Your task to perform on an android device: Go to Wikipedia Image 0: 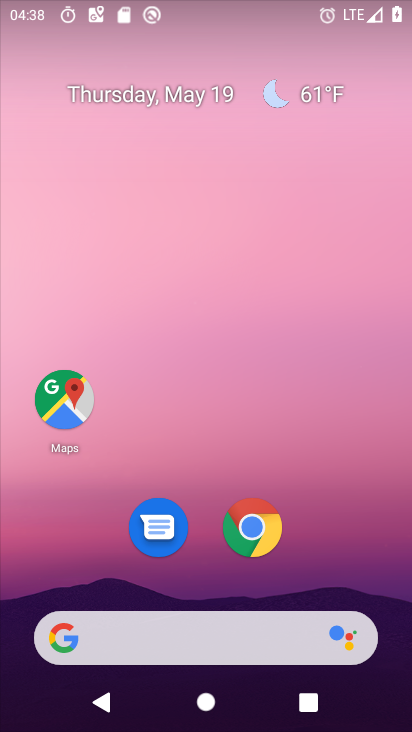
Step 0: click (251, 515)
Your task to perform on an android device: Go to Wikipedia Image 1: 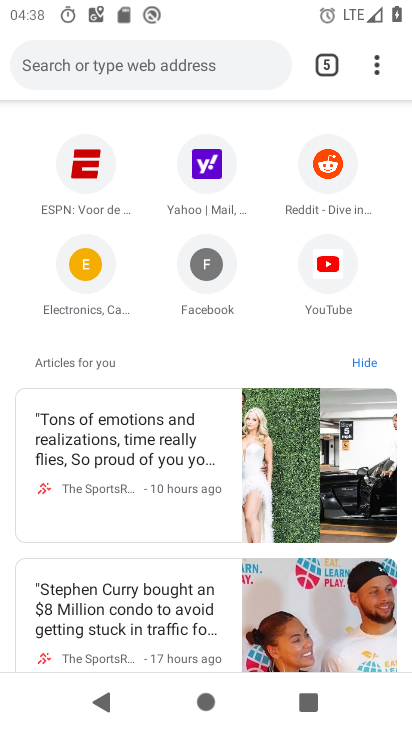
Step 1: click (109, 68)
Your task to perform on an android device: Go to Wikipedia Image 2: 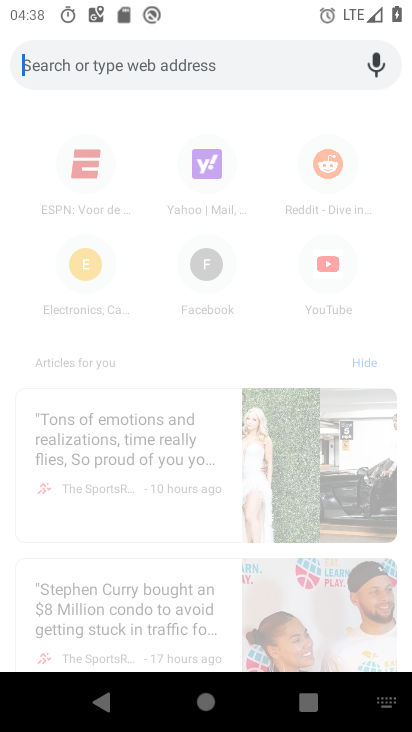
Step 2: type "wikipedia"
Your task to perform on an android device: Go to Wikipedia Image 3: 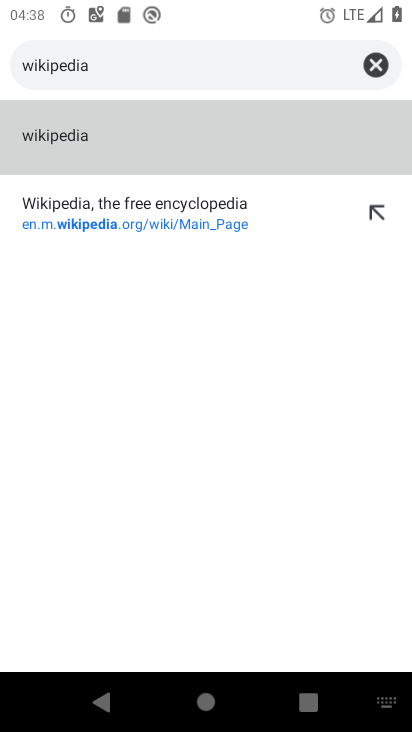
Step 3: click (113, 216)
Your task to perform on an android device: Go to Wikipedia Image 4: 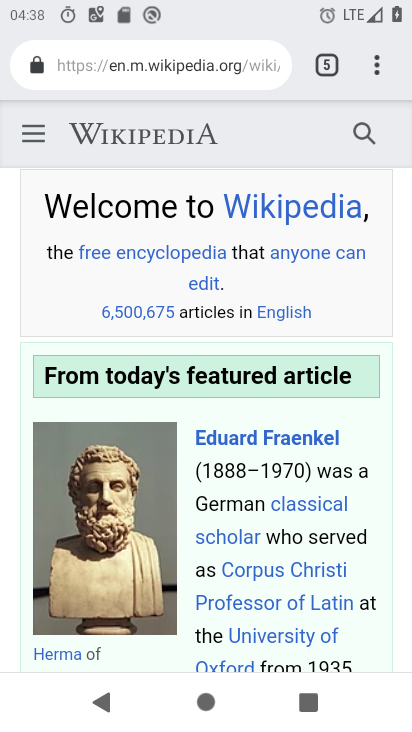
Step 4: task complete